Your task to perform on an android device: turn on wifi Image 0: 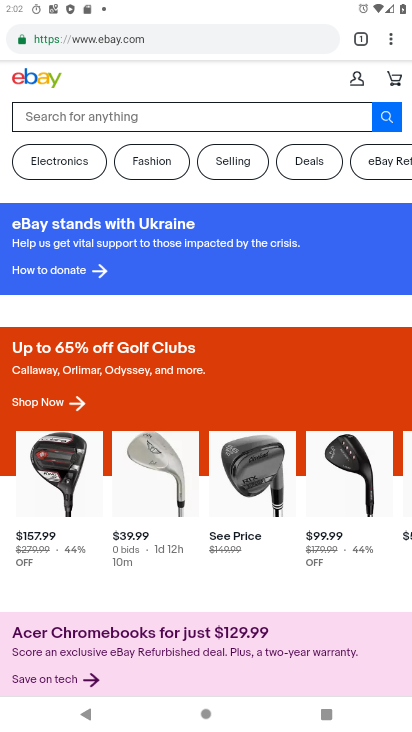
Step 0: press home button
Your task to perform on an android device: turn on wifi Image 1: 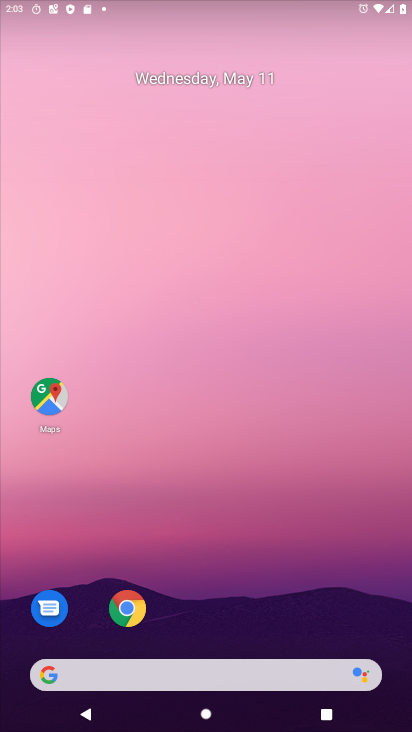
Step 1: drag from (268, 595) to (384, 47)
Your task to perform on an android device: turn on wifi Image 2: 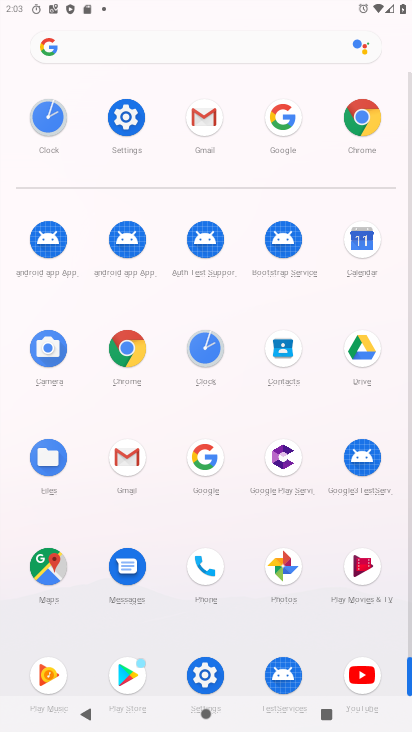
Step 2: click (131, 145)
Your task to perform on an android device: turn on wifi Image 3: 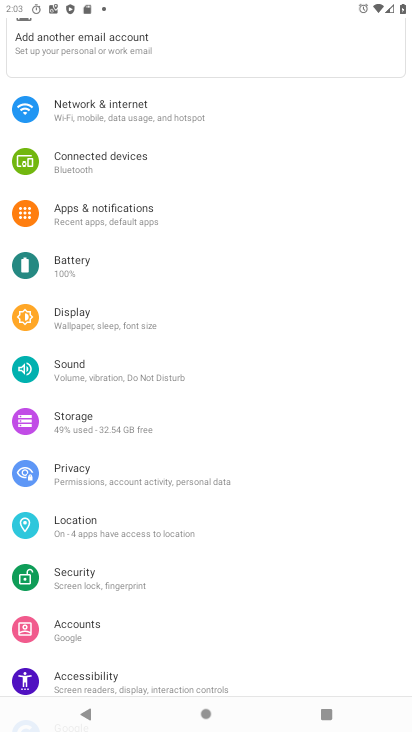
Step 3: click (196, 104)
Your task to perform on an android device: turn on wifi Image 4: 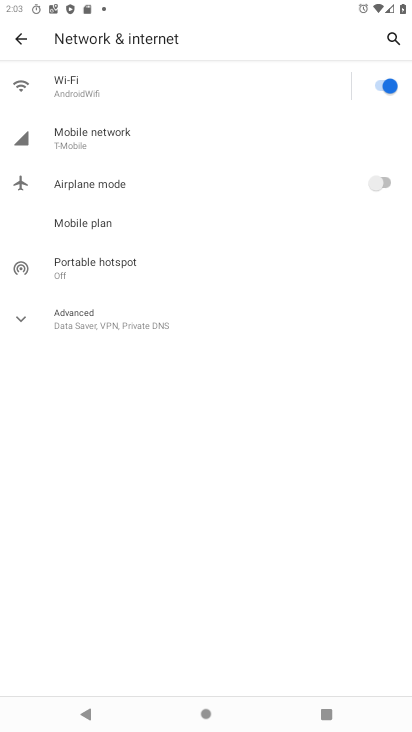
Step 4: task complete